Your task to perform on an android device: Open Maps and search for coffee Image 0: 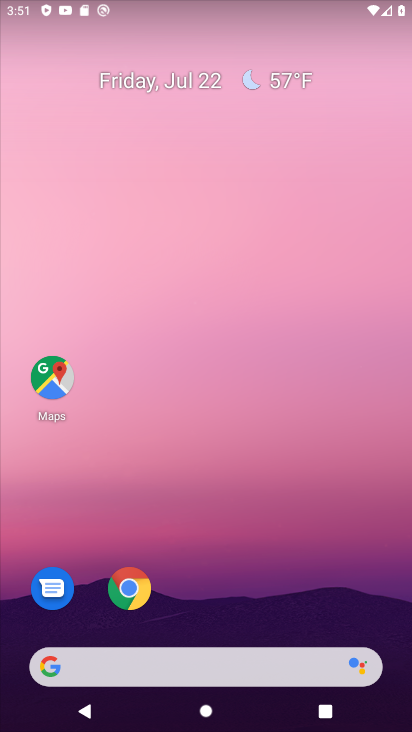
Step 0: click (37, 385)
Your task to perform on an android device: Open Maps and search for coffee Image 1: 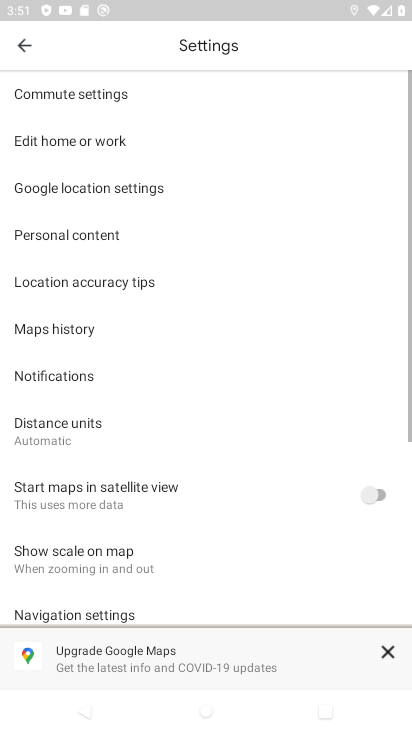
Step 1: click (21, 44)
Your task to perform on an android device: Open Maps and search for coffee Image 2: 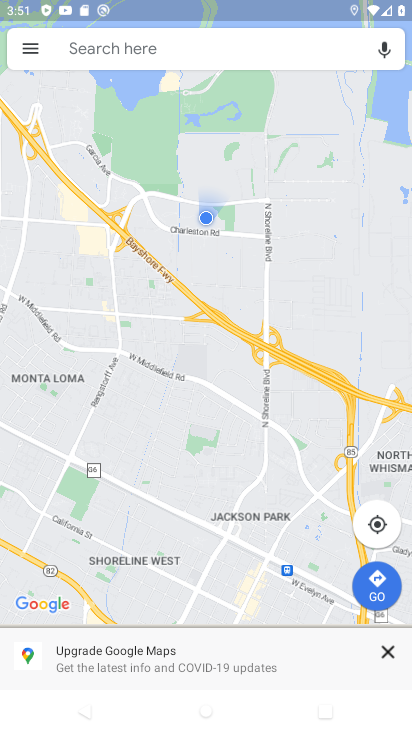
Step 2: click (162, 58)
Your task to perform on an android device: Open Maps and search for coffee Image 3: 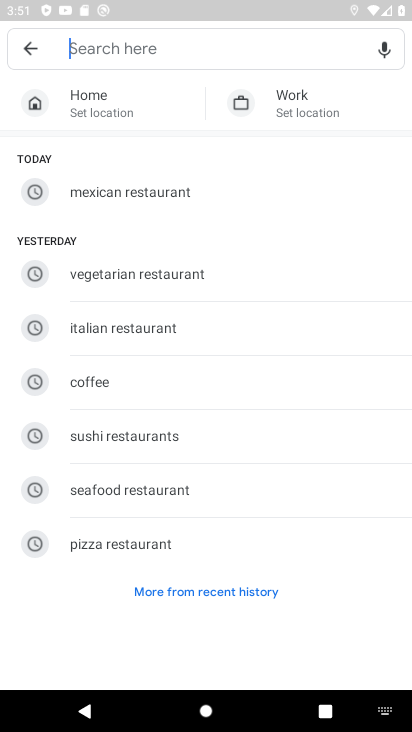
Step 3: click (99, 389)
Your task to perform on an android device: Open Maps and search for coffee Image 4: 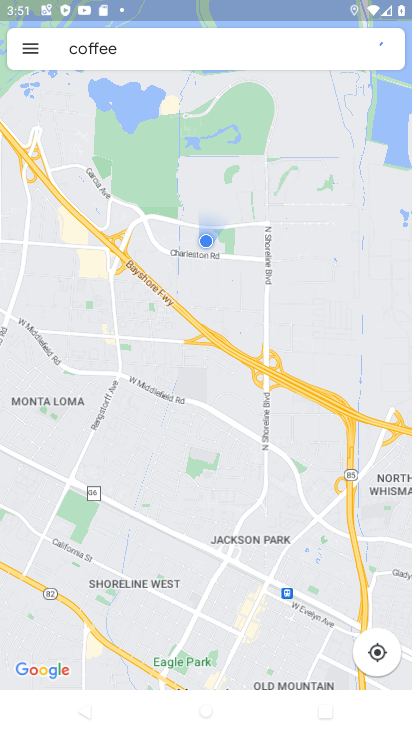
Step 4: task complete